Your task to perform on an android device: open a new tab in the chrome app Image 0: 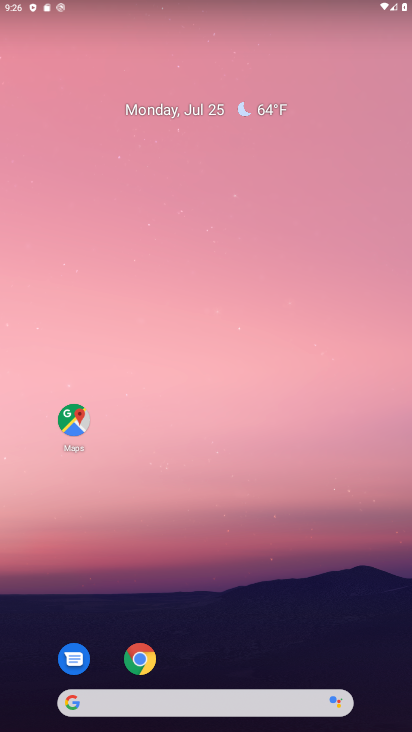
Step 0: press home button
Your task to perform on an android device: open a new tab in the chrome app Image 1: 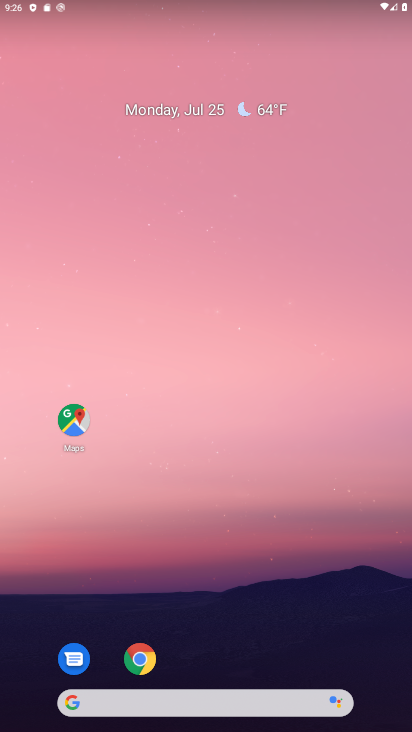
Step 1: drag from (314, 578) to (360, 71)
Your task to perform on an android device: open a new tab in the chrome app Image 2: 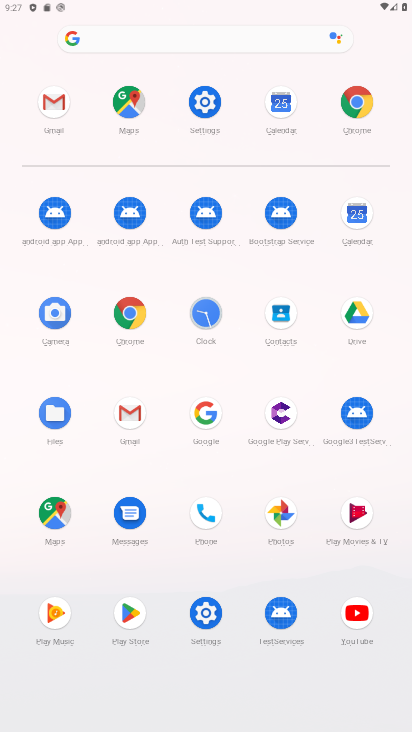
Step 2: click (134, 313)
Your task to perform on an android device: open a new tab in the chrome app Image 3: 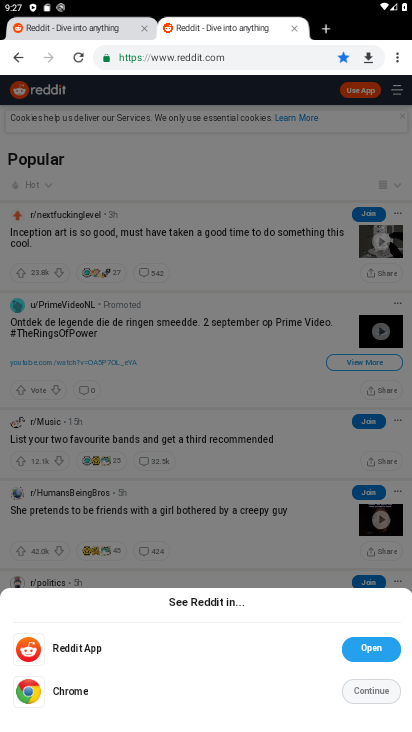
Step 3: click (395, 55)
Your task to perform on an android device: open a new tab in the chrome app Image 4: 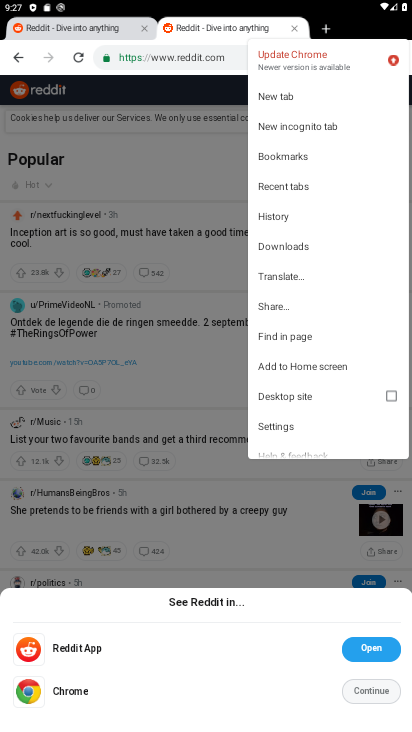
Step 4: click (309, 95)
Your task to perform on an android device: open a new tab in the chrome app Image 5: 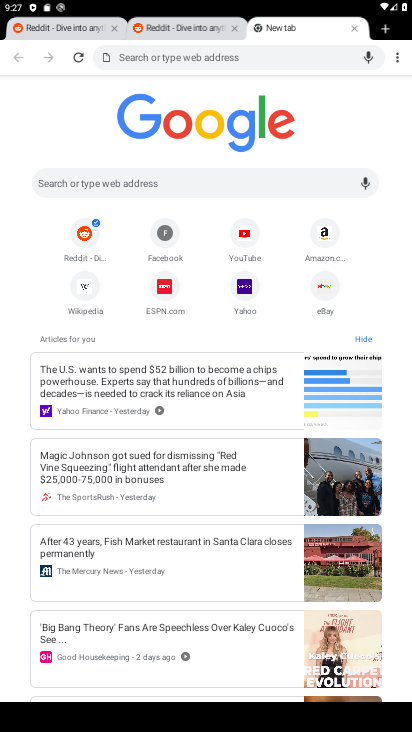
Step 5: task complete